Your task to perform on an android device: toggle javascript in the chrome app Image 0: 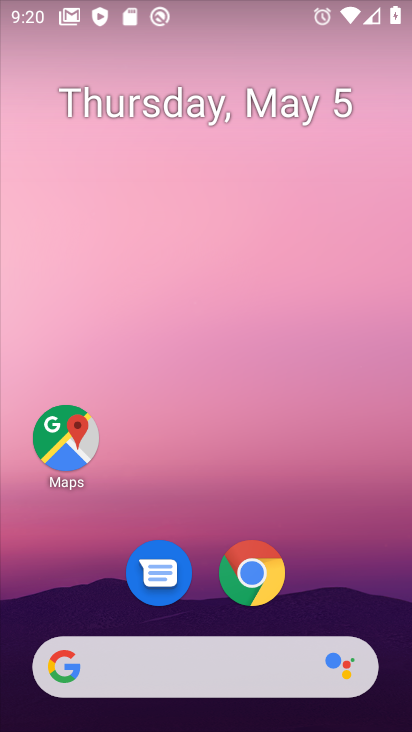
Step 0: click (265, 565)
Your task to perform on an android device: toggle javascript in the chrome app Image 1: 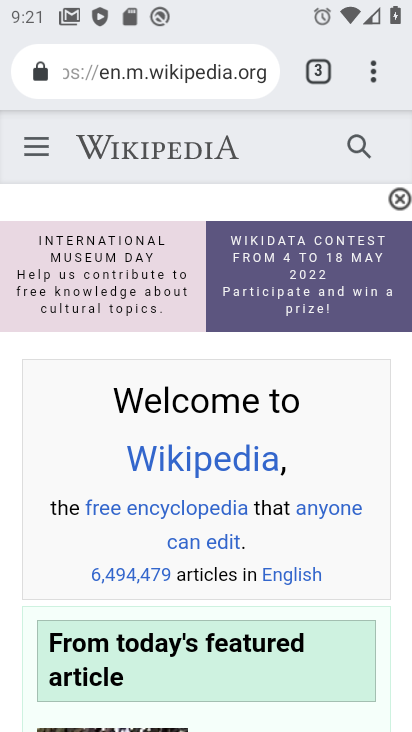
Step 1: drag from (371, 61) to (113, 612)
Your task to perform on an android device: toggle javascript in the chrome app Image 2: 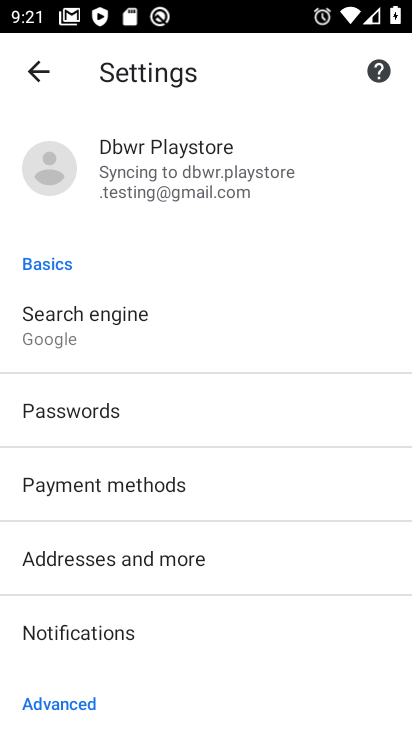
Step 2: drag from (106, 669) to (181, 319)
Your task to perform on an android device: toggle javascript in the chrome app Image 3: 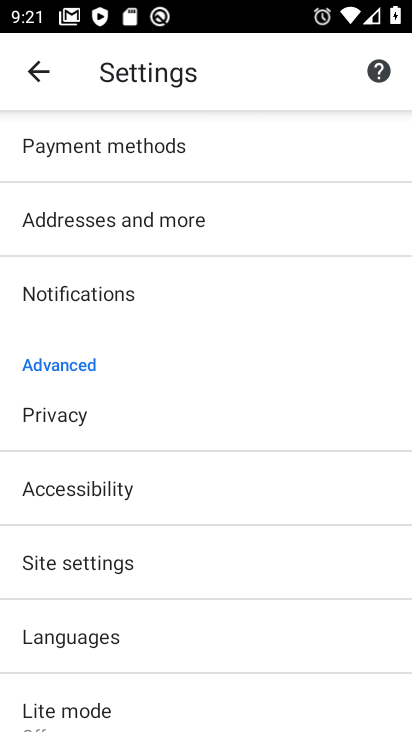
Step 3: click (52, 572)
Your task to perform on an android device: toggle javascript in the chrome app Image 4: 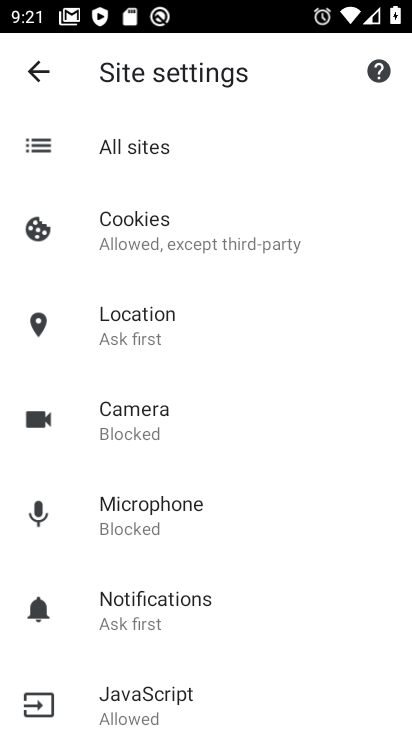
Step 4: click (139, 693)
Your task to perform on an android device: toggle javascript in the chrome app Image 5: 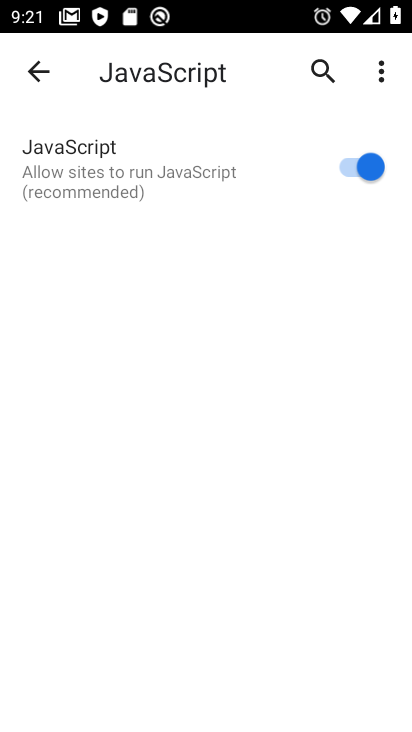
Step 5: click (352, 162)
Your task to perform on an android device: toggle javascript in the chrome app Image 6: 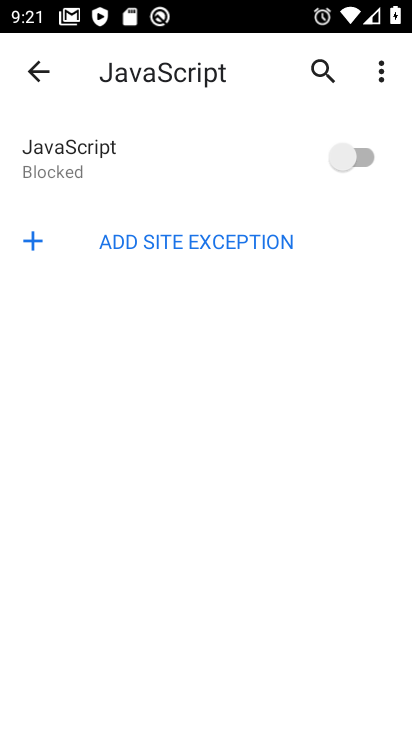
Step 6: task complete